Your task to perform on an android device: move an email to a new category in the gmail app Image 0: 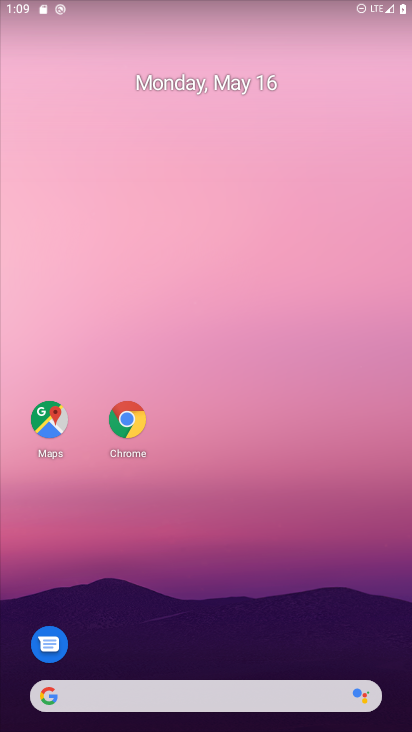
Step 0: drag from (182, 646) to (160, 111)
Your task to perform on an android device: move an email to a new category in the gmail app Image 1: 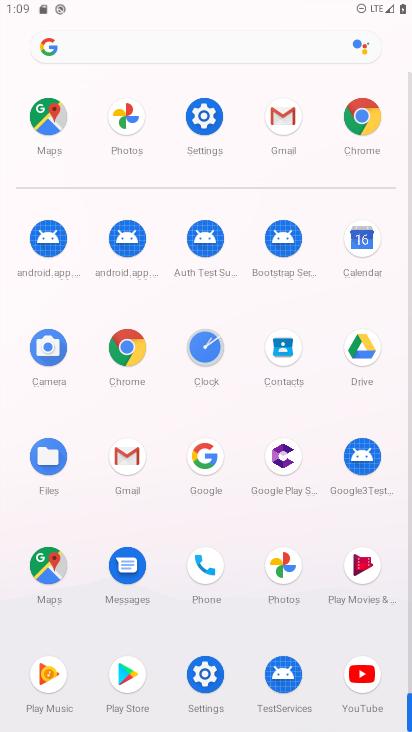
Step 1: click (120, 456)
Your task to perform on an android device: move an email to a new category in the gmail app Image 2: 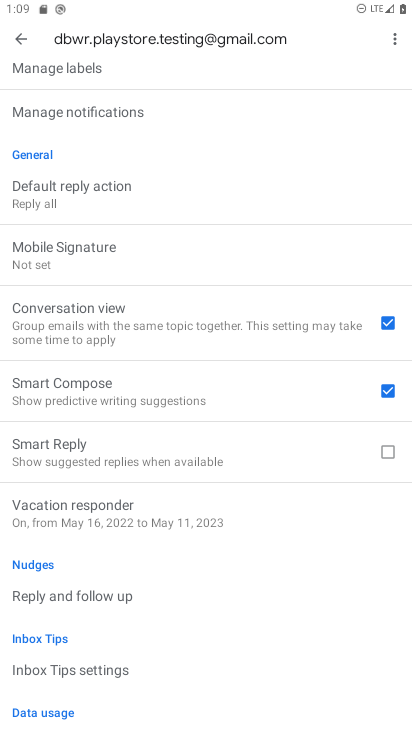
Step 2: drag from (95, 169) to (269, 731)
Your task to perform on an android device: move an email to a new category in the gmail app Image 3: 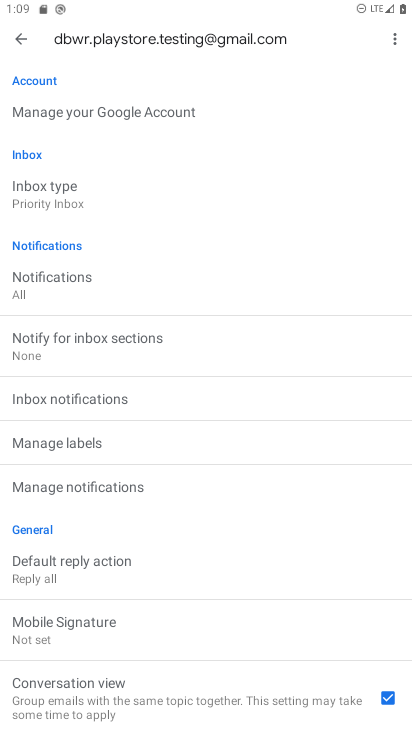
Step 3: click (20, 34)
Your task to perform on an android device: move an email to a new category in the gmail app Image 4: 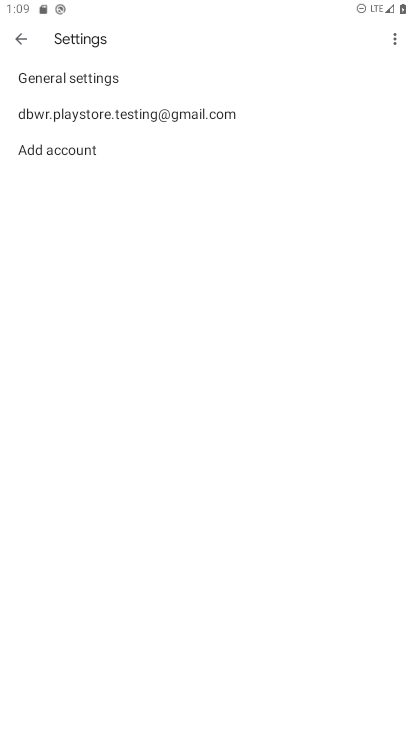
Step 4: click (18, 34)
Your task to perform on an android device: move an email to a new category in the gmail app Image 5: 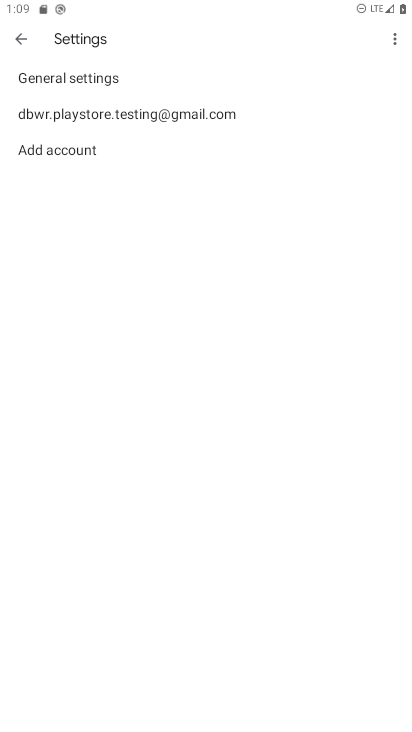
Step 5: click (15, 34)
Your task to perform on an android device: move an email to a new category in the gmail app Image 6: 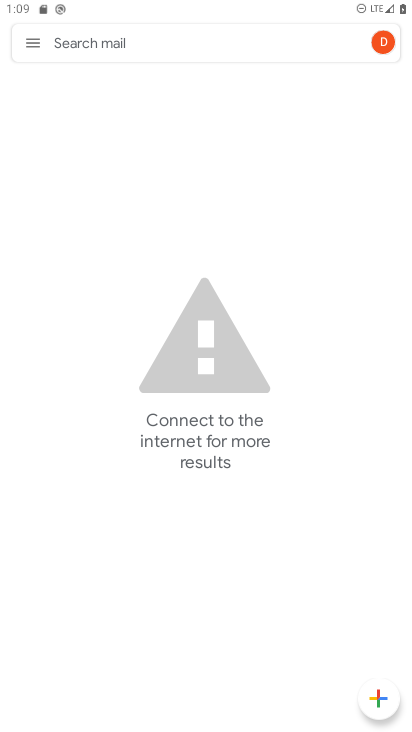
Step 6: click (35, 46)
Your task to perform on an android device: move an email to a new category in the gmail app Image 7: 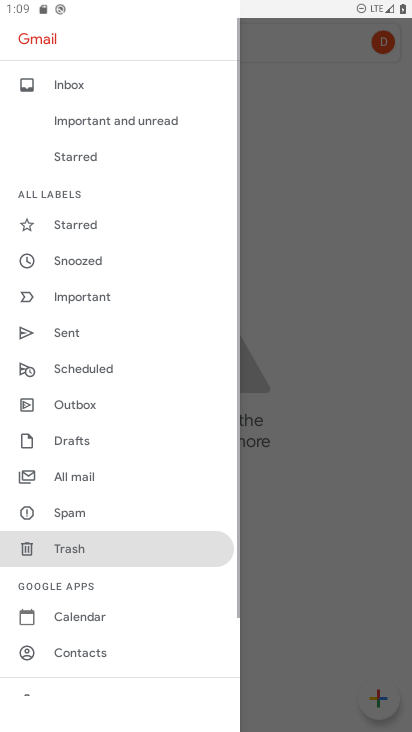
Step 7: drag from (79, 131) to (110, 403)
Your task to perform on an android device: move an email to a new category in the gmail app Image 8: 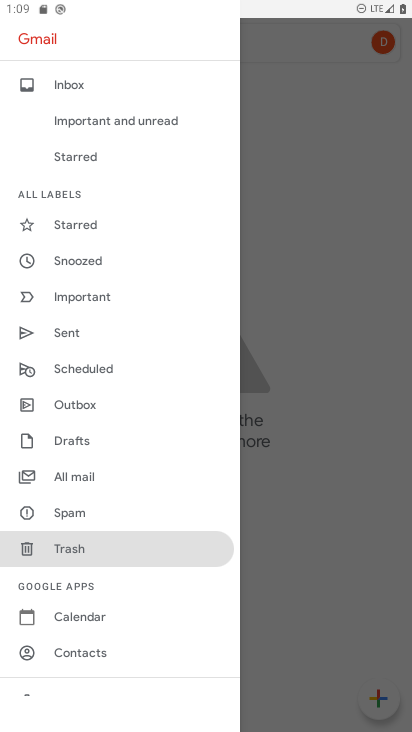
Step 8: click (72, 91)
Your task to perform on an android device: move an email to a new category in the gmail app Image 9: 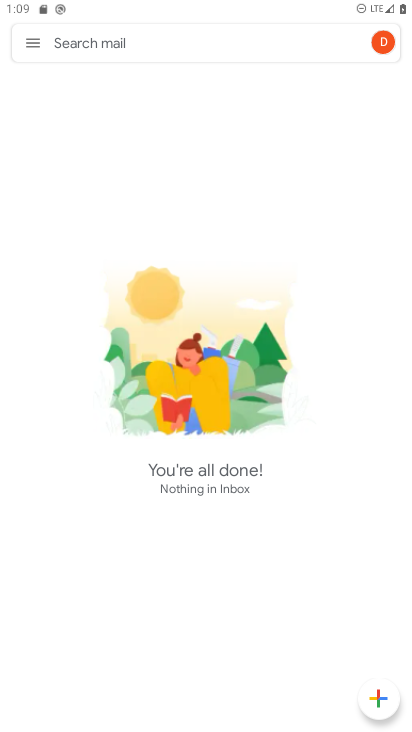
Step 9: task complete